Your task to perform on an android device: turn off wifi Image 0: 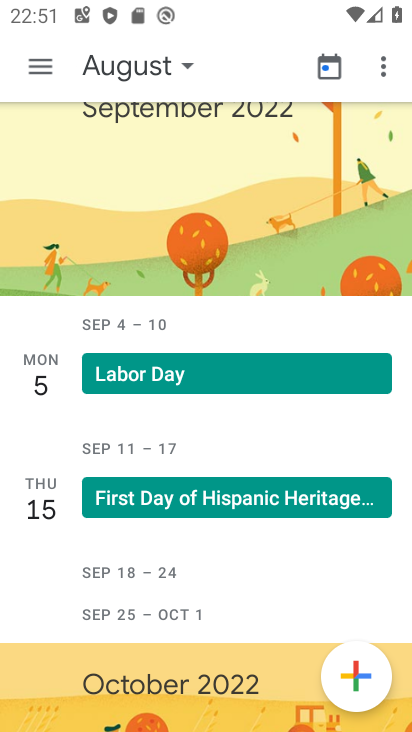
Step 0: press home button
Your task to perform on an android device: turn off wifi Image 1: 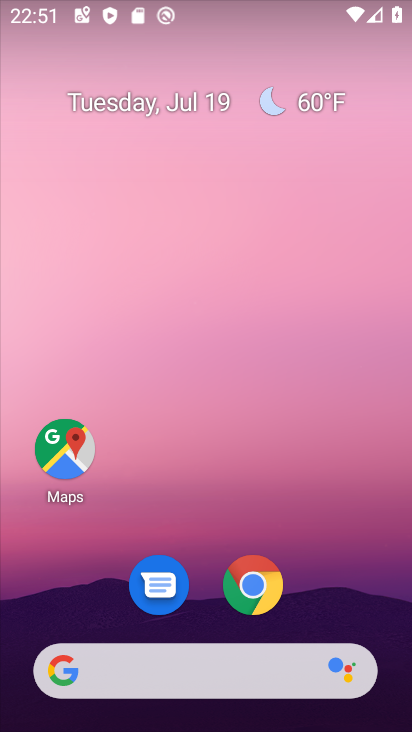
Step 1: drag from (339, 587) to (314, 71)
Your task to perform on an android device: turn off wifi Image 2: 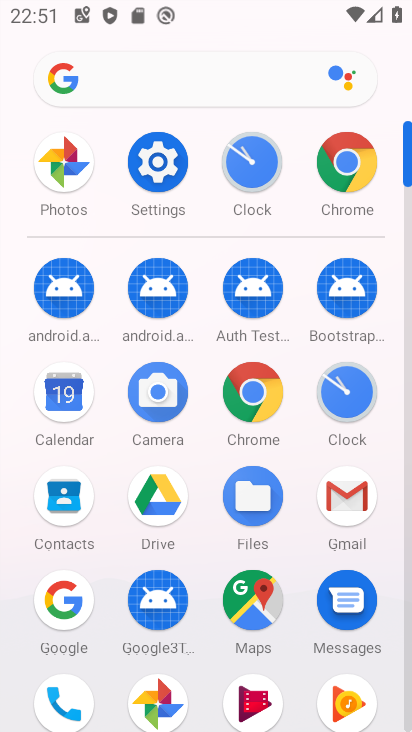
Step 2: click (175, 162)
Your task to perform on an android device: turn off wifi Image 3: 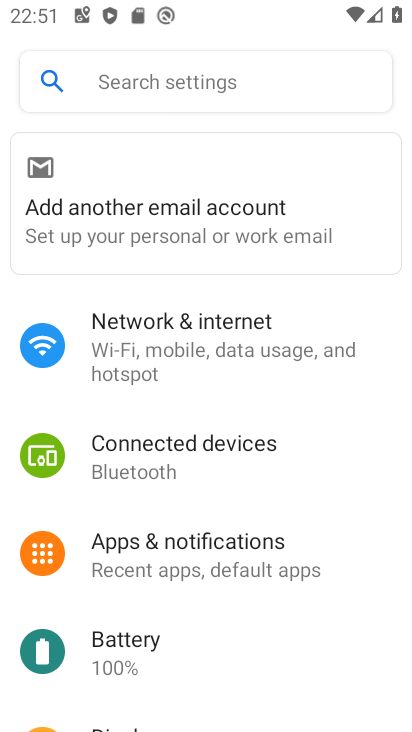
Step 3: click (206, 326)
Your task to perform on an android device: turn off wifi Image 4: 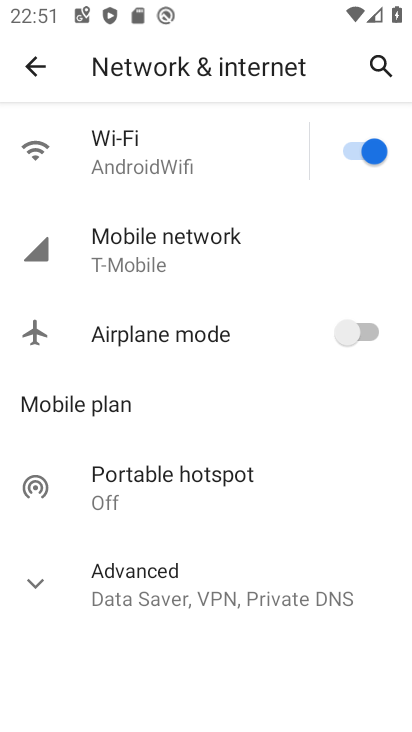
Step 4: click (359, 149)
Your task to perform on an android device: turn off wifi Image 5: 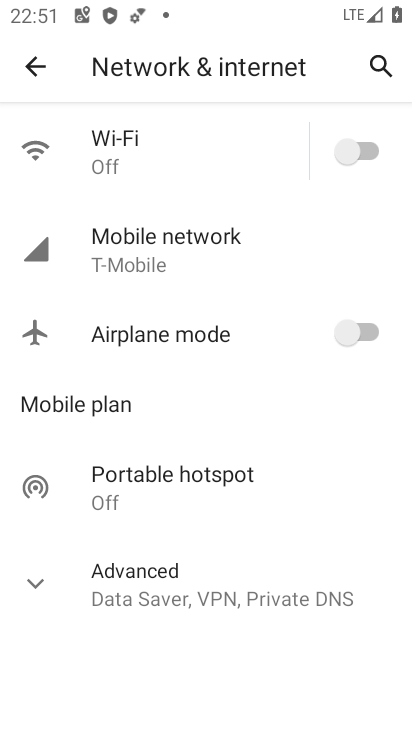
Step 5: task complete